Your task to perform on an android device: turn off sleep mode Image 0: 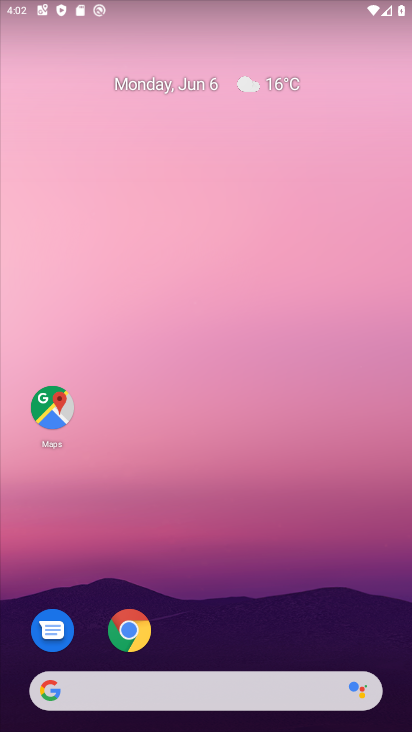
Step 0: drag from (223, 645) to (280, 126)
Your task to perform on an android device: turn off sleep mode Image 1: 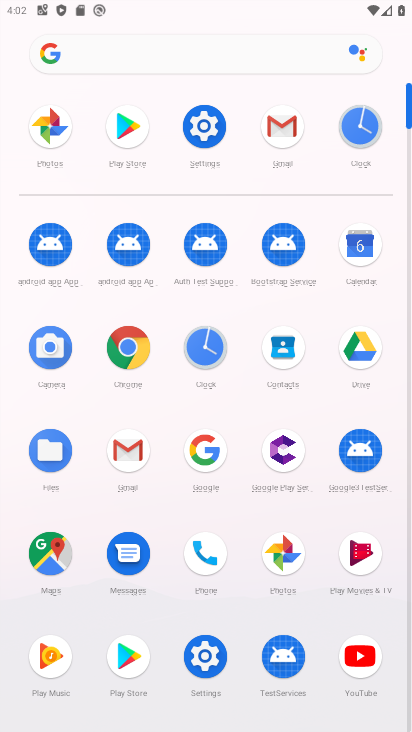
Step 1: click (219, 129)
Your task to perform on an android device: turn off sleep mode Image 2: 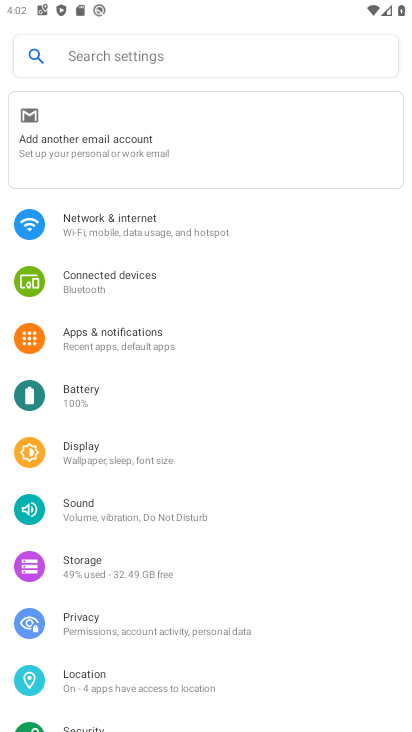
Step 2: click (134, 55)
Your task to perform on an android device: turn off sleep mode Image 3: 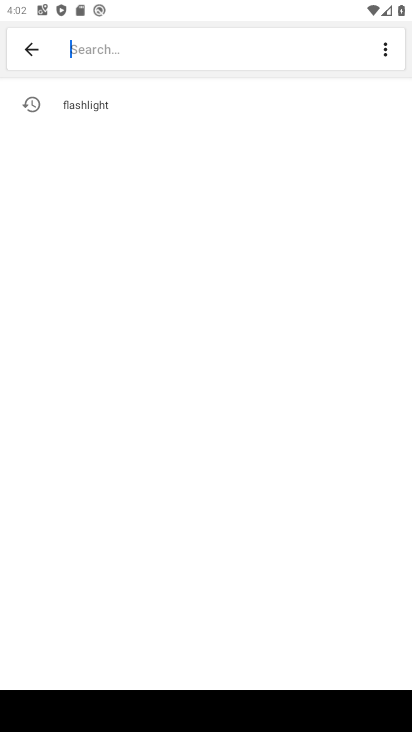
Step 3: type "sleep mode"
Your task to perform on an android device: turn off sleep mode Image 4: 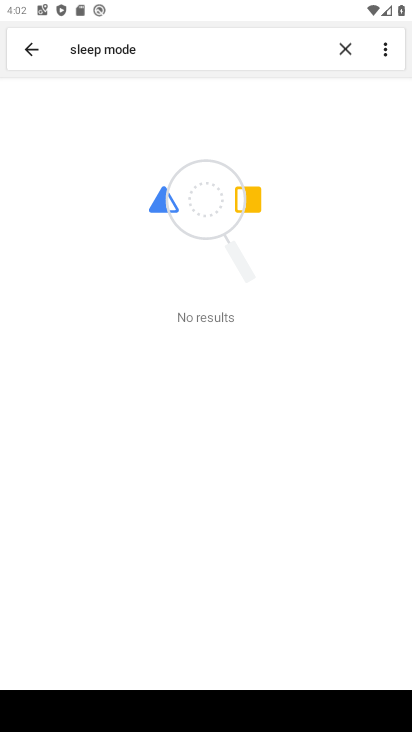
Step 4: task complete